Your task to perform on an android device: Find coffee shops on Maps Image 0: 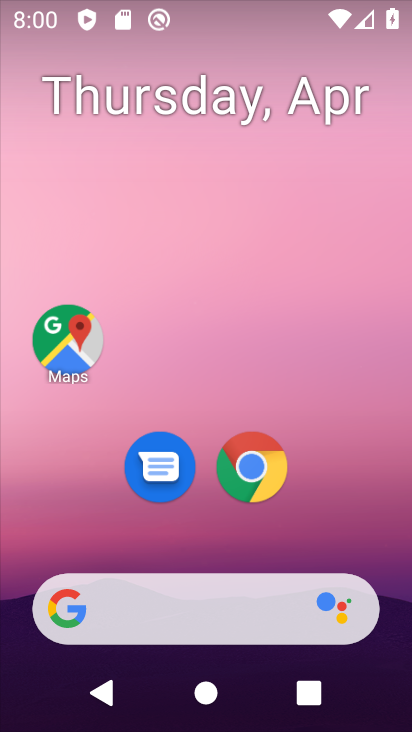
Step 0: click (74, 327)
Your task to perform on an android device: Find coffee shops on Maps Image 1: 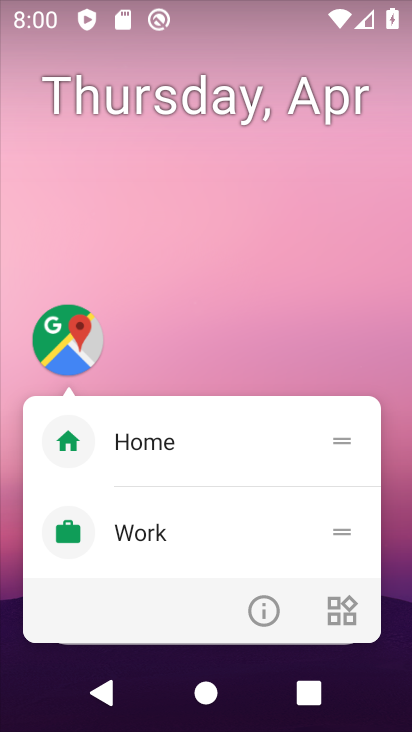
Step 1: click (74, 327)
Your task to perform on an android device: Find coffee shops on Maps Image 2: 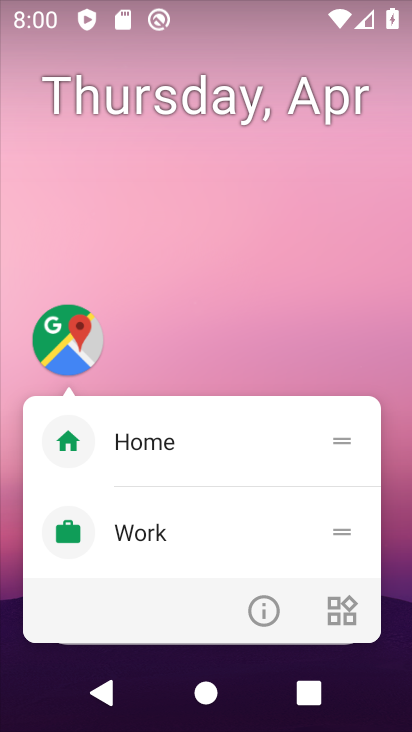
Step 2: click (74, 327)
Your task to perform on an android device: Find coffee shops on Maps Image 3: 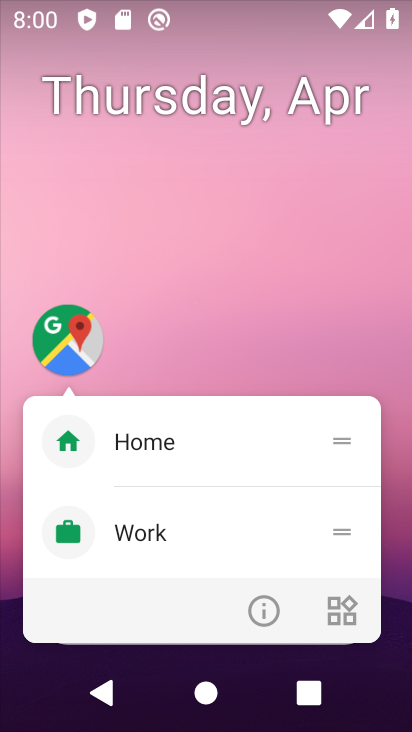
Step 3: click (74, 327)
Your task to perform on an android device: Find coffee shops on Maps Image 4: 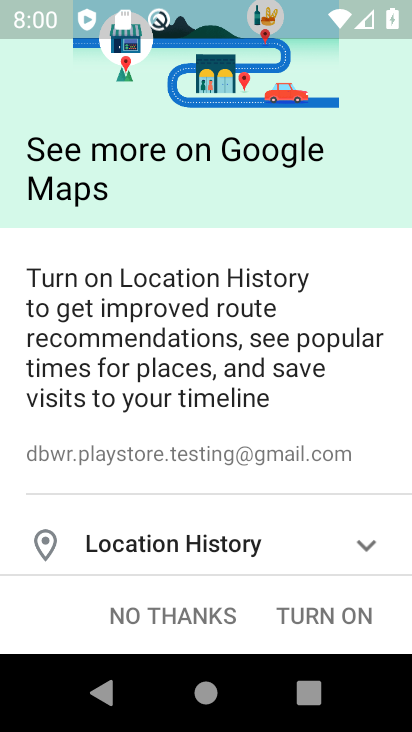
Step 4: click (327, 609)
Your task to perform on an android device: Find coffee shops on Maps Image 5: 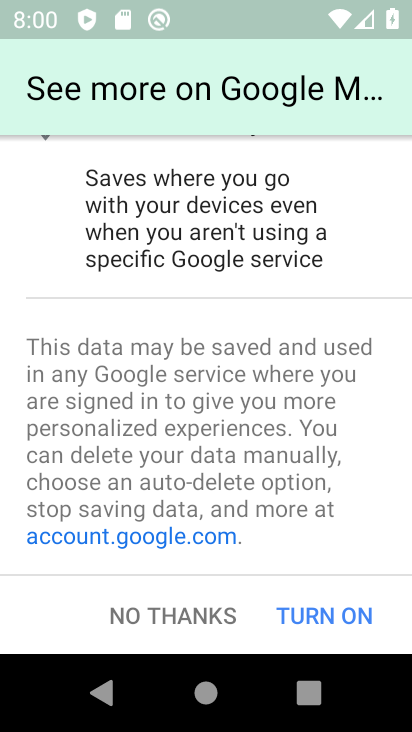
Step 5: click (327, 609)
Your task to perform on an android device: Find coffee shops on Maps Image 6: 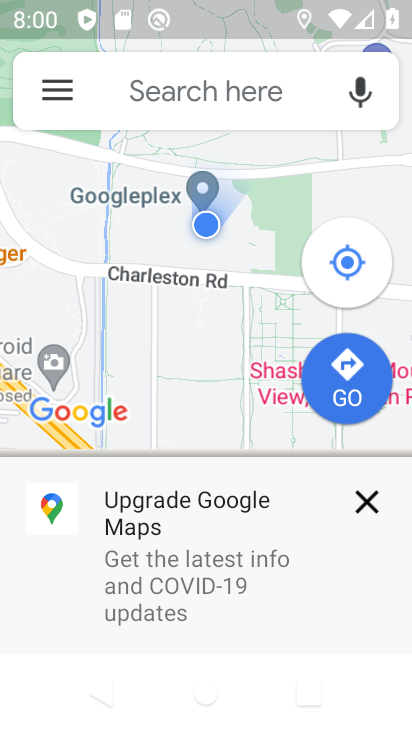
Step 6: click (240, 70)
Your task to perform on an android device: Find coffee shops on Maps Image 7: 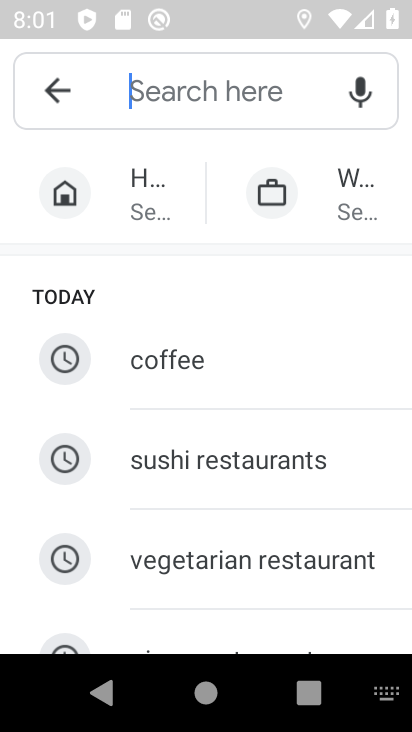
Step 7: type "coffee shops"
Your task to perform on an android device: Find coffee shops on Maps Image 8: 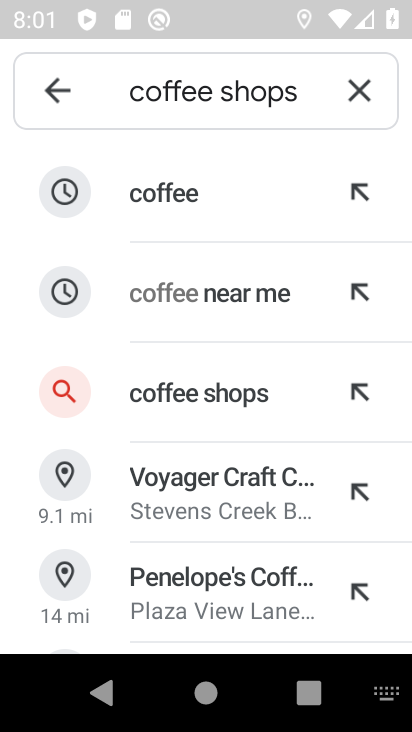
Step 8: click (215, 384)
Your task to perform on an android device: Find coffee shops on Maps Image 9: 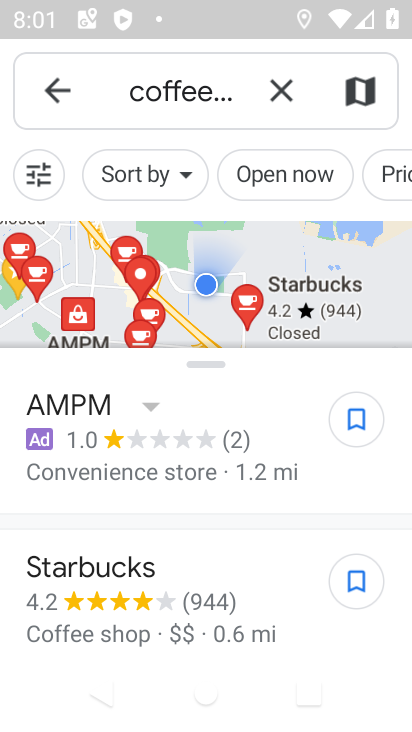
Step 9: task complete